Your task to perform on an android device: turn notification dots off Image 0: 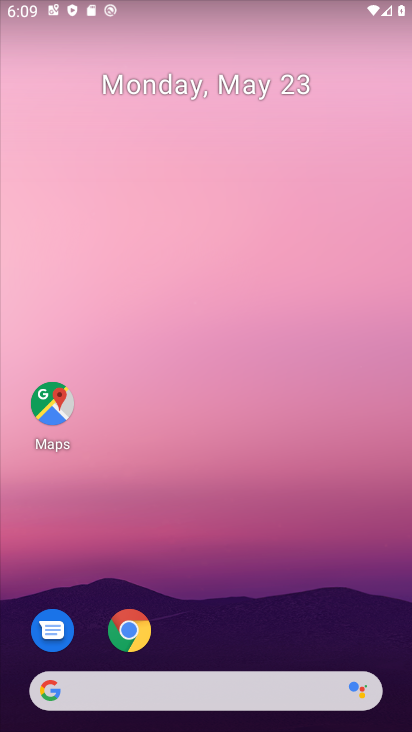
Step 0: drag from (278, 529) to (280, 36)
Your task to perform on an android device: turn notification dots off Image 1: 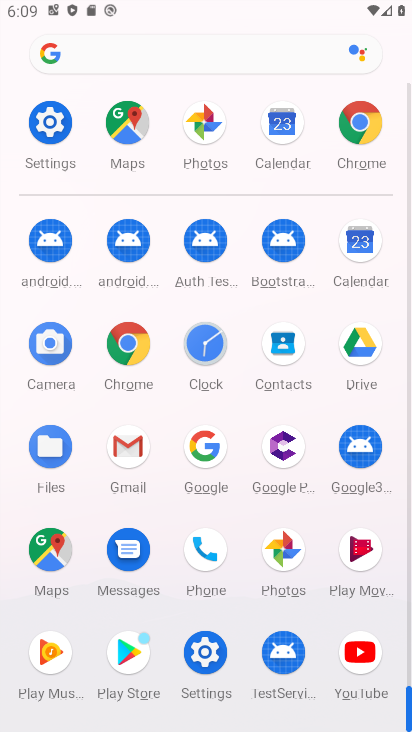
Step 1: drag from (15, 604) to (13, 199)
Your task to perform on an android device: turn notification dots off Image 2: 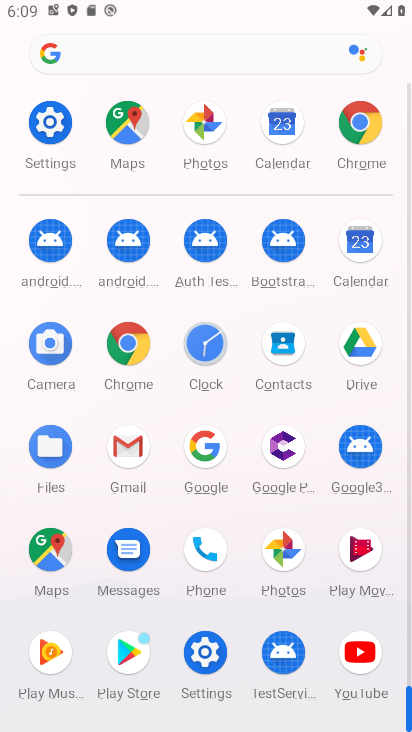
Step 2: click (200, 647)
Your task to perform on an android device: turn notification dots off Image 3: 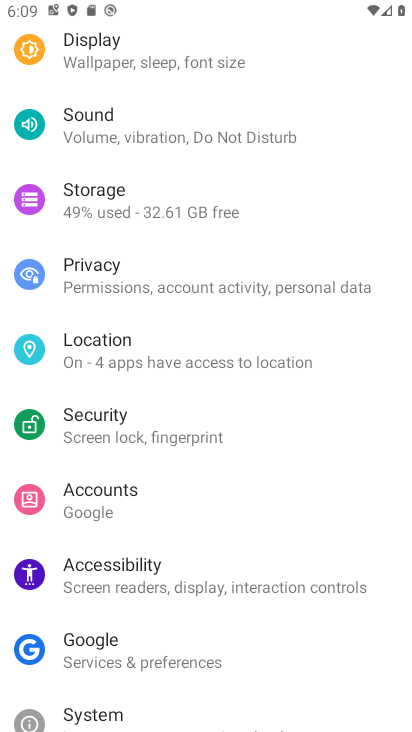
Step 3: drag from (200, 477) to (218, 101)
Your task to perform on an android device: turn notification dots off Image 4: 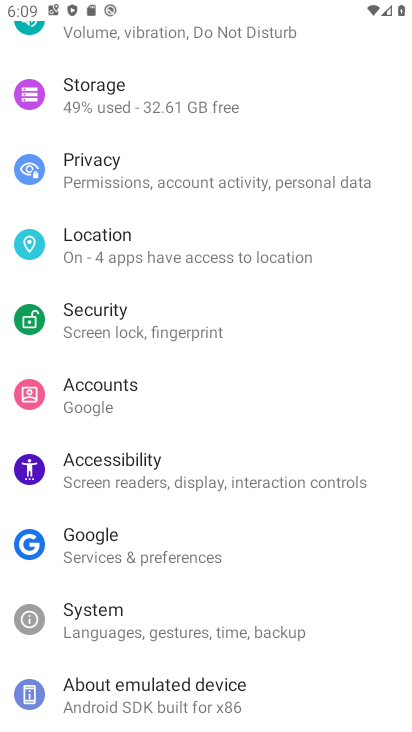
Step 4: drag from (275, 498) to (273, 163)
Your task to perform on an android device: turn notification dots off Image 5: 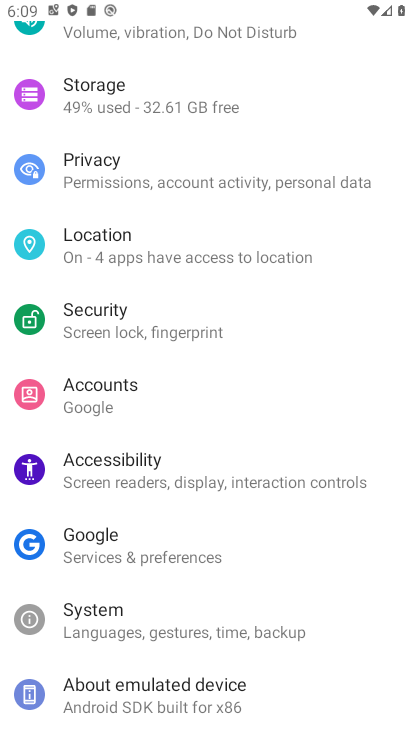
Step 5: drag from (261, 211) to (254, 594)
Your task to perform on an android device: turn notification dots off Image 6: 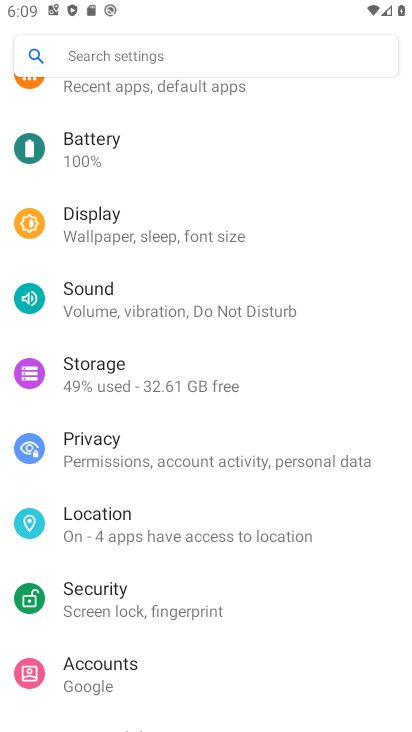
Step 6: drag from (210, 237) to (210, 578)
Your task to perform on an android device: turn notification dots off Image 7: 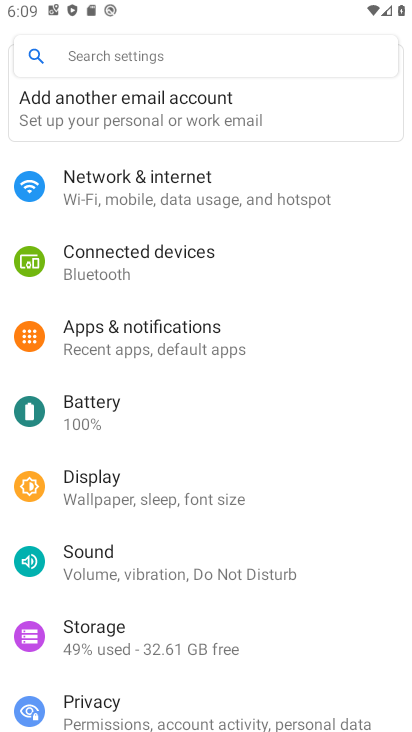
Step 7: click (164, 349)
Your task to perform on an android device: turn notification dots off Image 8: 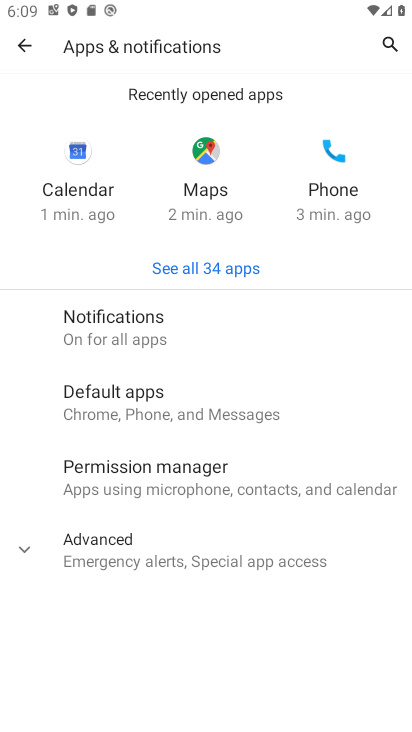
Step 8: click (170, 328)
Your task to perform on an android device: turn notification dots off Image 9: 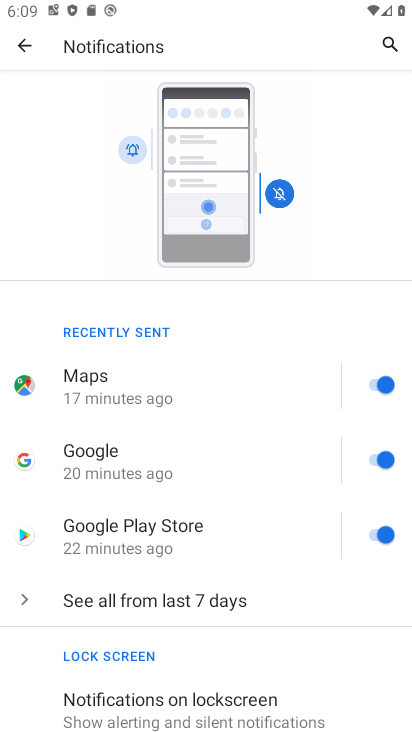
Step 9: drag from (229, 677) to (269, 166)
Your task to perform on an android device: turn notification dots off Image 10: 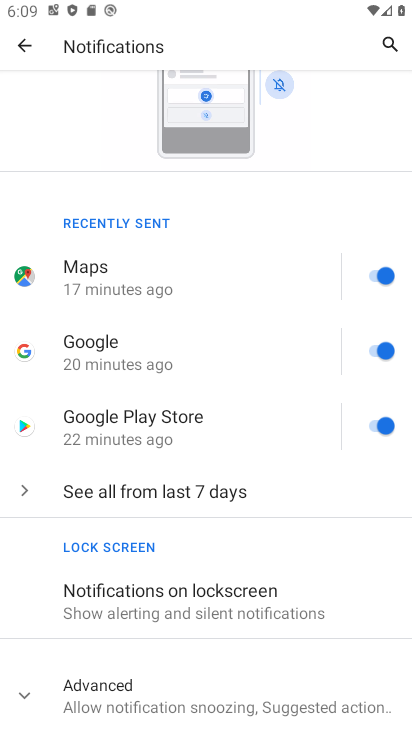
Step 10: click (107, 679)
Your task to perform on an android device: turn notification dots off Image 11: 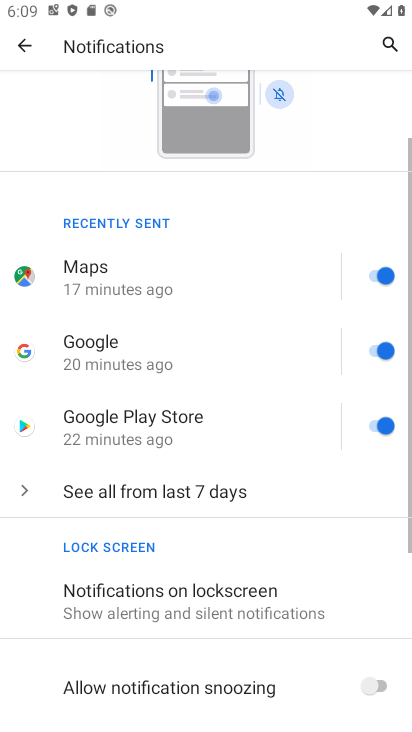
Step 11: drag from (229, 540) to (252, 207)
Your task to perform on an android device: turn notification dots off Image 12: 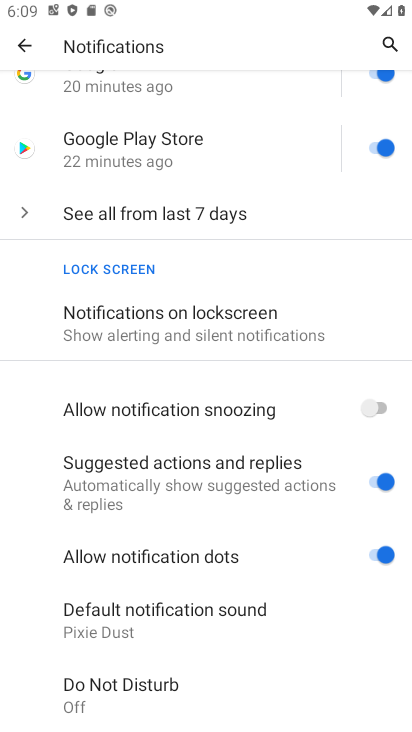
Step 12: click (390, 558)
Your task to perform on an android device: turn notification dots off Image 13: 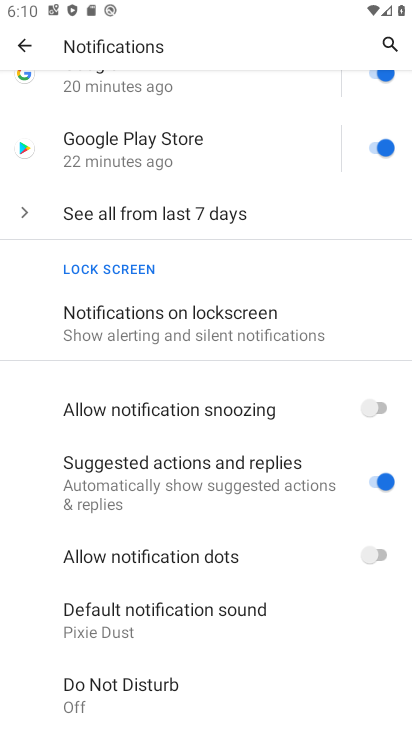
Step 13: task complete